Your task to perform on an android device: Go to sound settings Image 0: 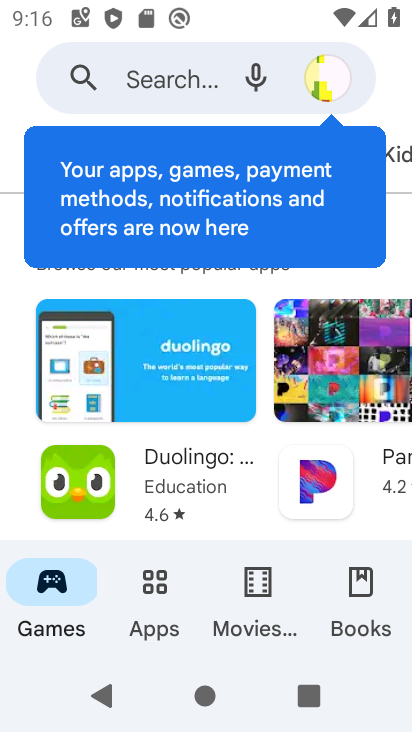
Step 0: press home button
Your task to perform on an android device: Go to sound settings Image 1: 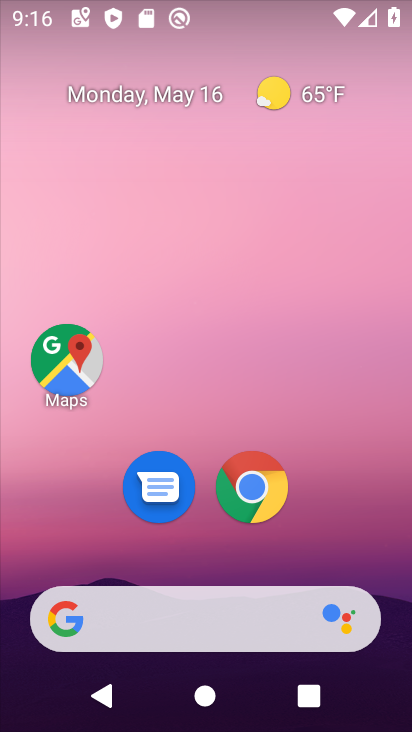
Step 1: drag from (374, 547) to (327, 86)
Your task to perform on an android device: Go to sound settings Image 2: 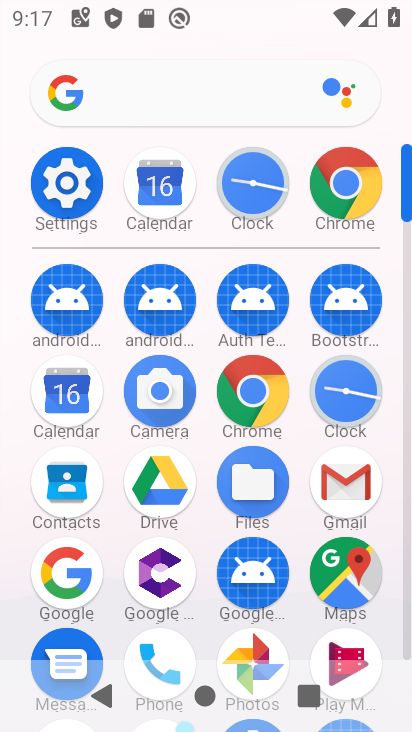
Step 2: click (86, 193)
Your task to perform on an android device: Go to sound settings Image 3: 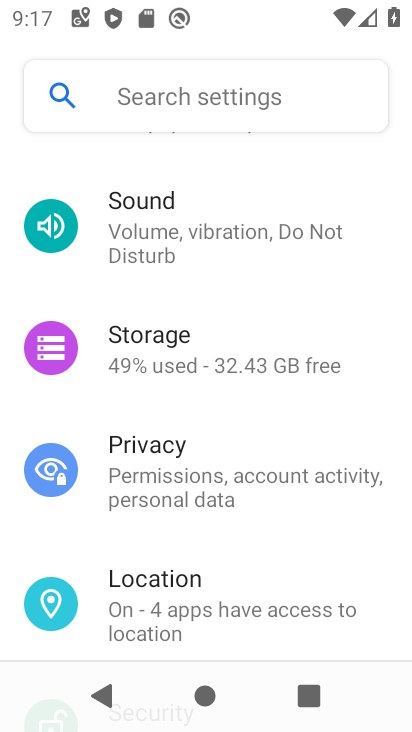
Step 3: drag from (324, 264) to (336, 378)
Your task to perform on an android device: Go to sound settings Image 4: 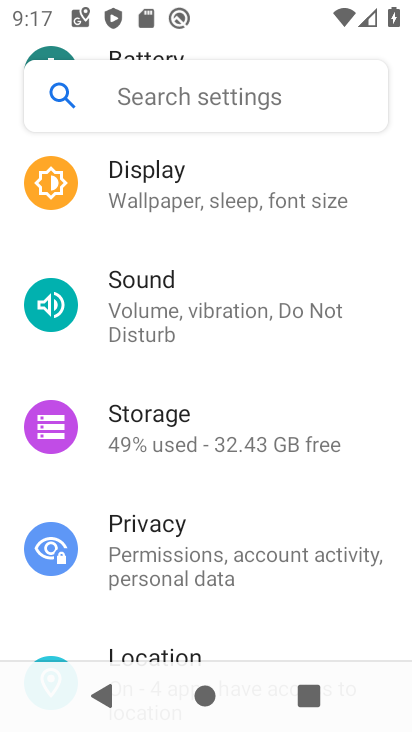
Step 4: drag from (379, 202) to (370, 395)
Your task to perform on an android device: Go to sound settings Image 5: 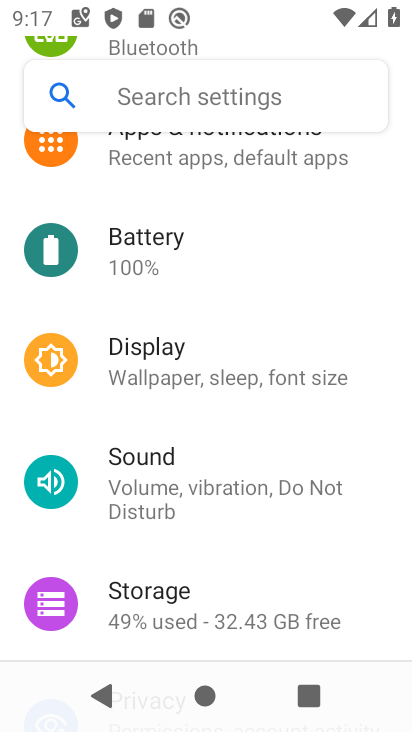
Step 5: drag from (381, 206) to (367, 400)
Your task to perform on an android device: Go to sound settings Image 6: 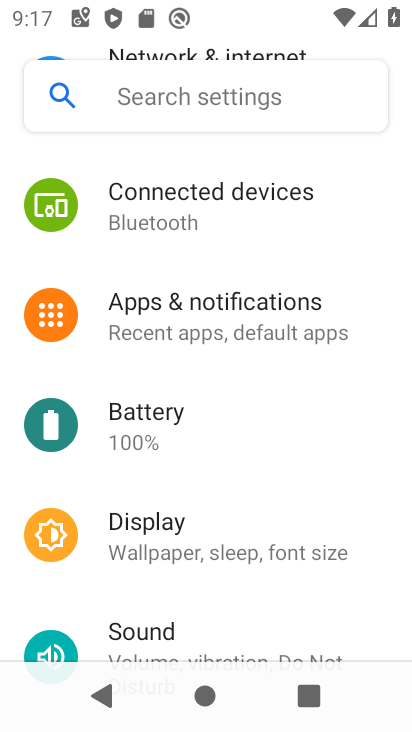
Step 6: drag from (365, 201) to (367, 377)
Your task to perform on an android device: Go to sound settings Image 7: 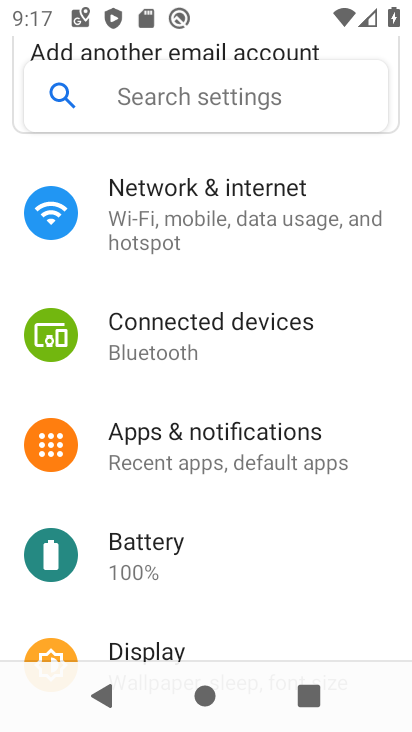
Step 7: drag from (345, 563) to (358, 419)
Your task to perform on an android device: Go to sound settings Image 8: 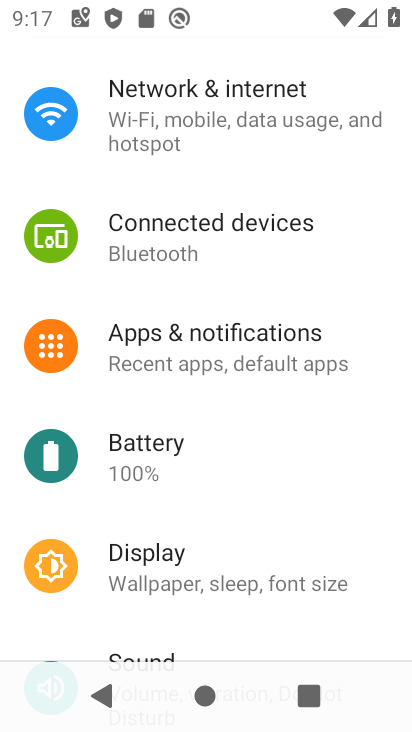
Step 8: drag from (331, 538) to (347, 332)
Your task to perform on an android device: Go to sound settings Image 9: 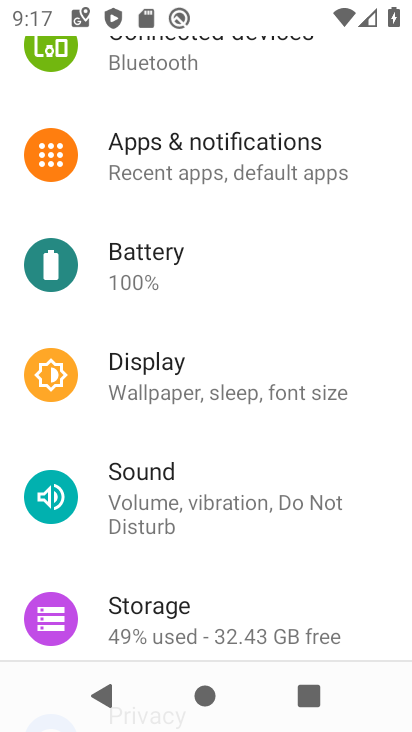
Step 9: drag from (340, 566) to (356, 335)
Your task to perform on an android device: Go to sound settings Image 10: 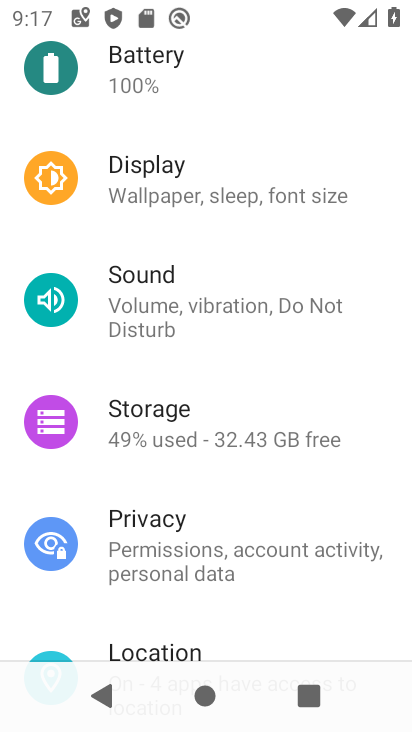
Step 10: drag from (335, 600) to (362, 351)
Your task to perform on an android device: Go to sound settings Image 11: 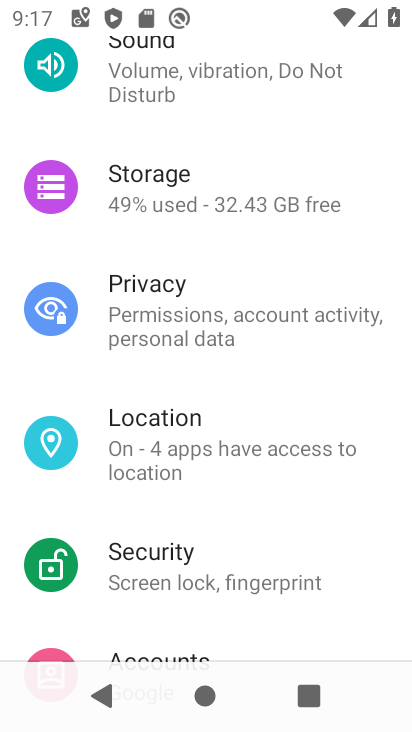
Step 11: drag from (345, 532) to (342, 358)
Your task to perform on an android device: Go to sound settings Image 12: 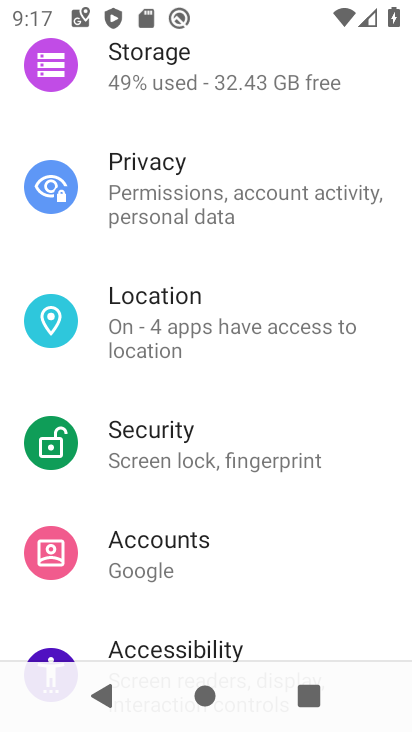
Step 12: drag from (350, 262) to (353, 426)
Your task to perform on an android device: Go to sound settings Image 13: 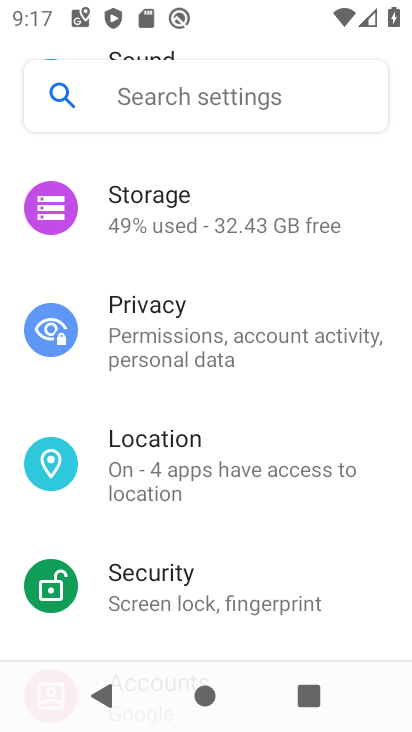
Step 13: drag from (345, 189) to (347, 362)
Your task to perform on an android device: Go to sound settings Image 14: 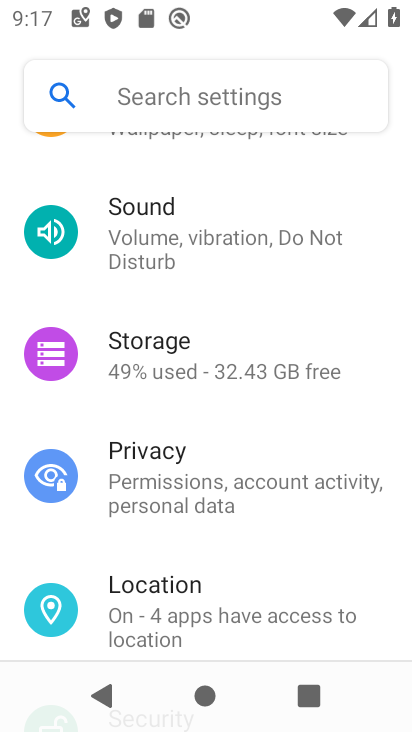
Step 14: drag from (341, 176) to (336, 336)
Your task to perform on an android device: Go to sound settings Image 15: 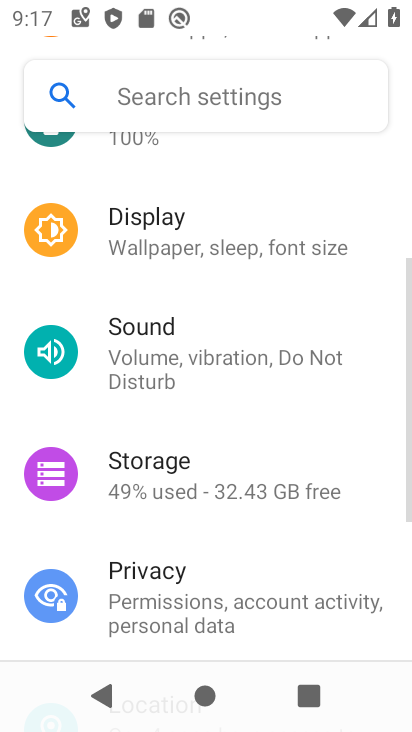
Step 15: click (316, 352)
Your task to perform on an android device: Go to sound settings Image 16: 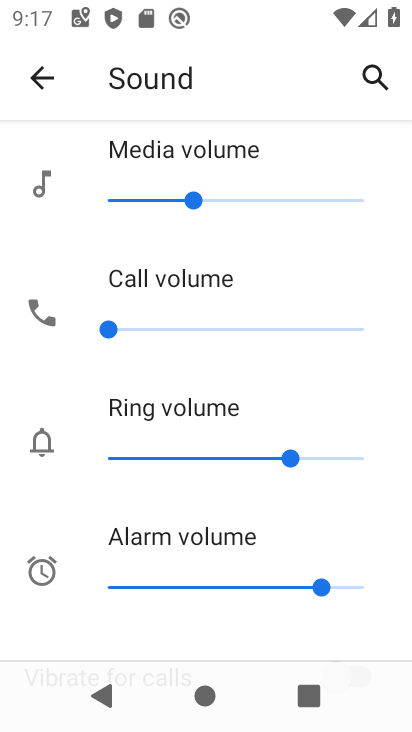
Step 16: task complete